Your task to perform on an android device: Search for seafood restaurants on Google Maps Image 0: 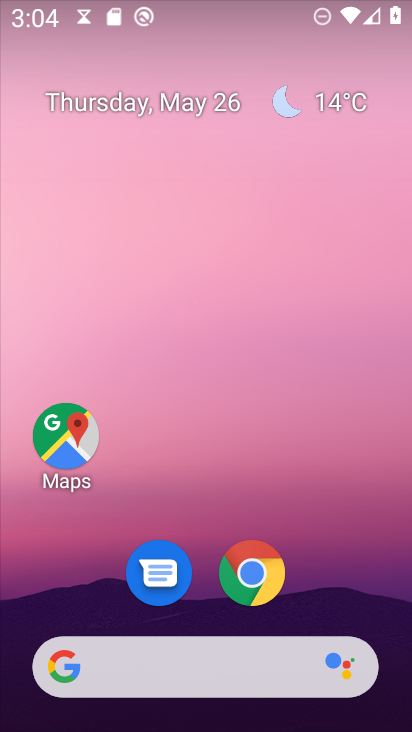
Step 0: drag from (299, 597) to (201, 37)
Your task to perform on an android device: Search for seafood restaurants on Google Maps Image 1: 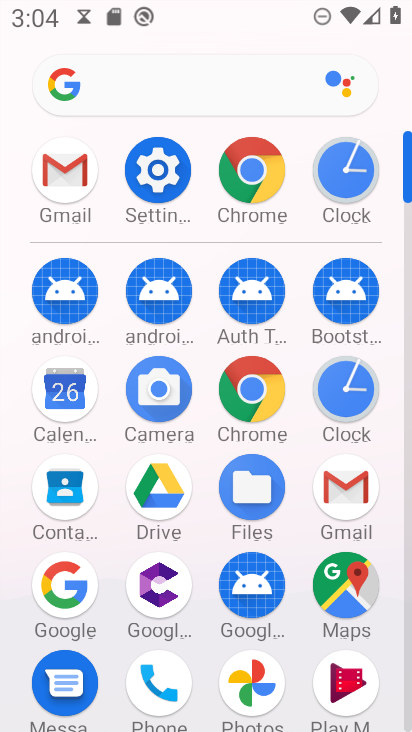
Step 1: click (337, 580)
Your task to perform on an android device: Search for seafood restaurants on Google Maps Image 2: 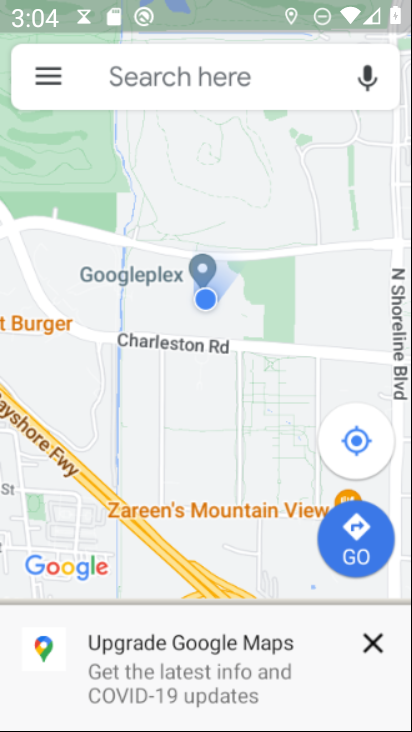
Step 2: click (276, 73)
Your task to perform on an android device: Search for seafood restaurants on Google Maps Image 3: 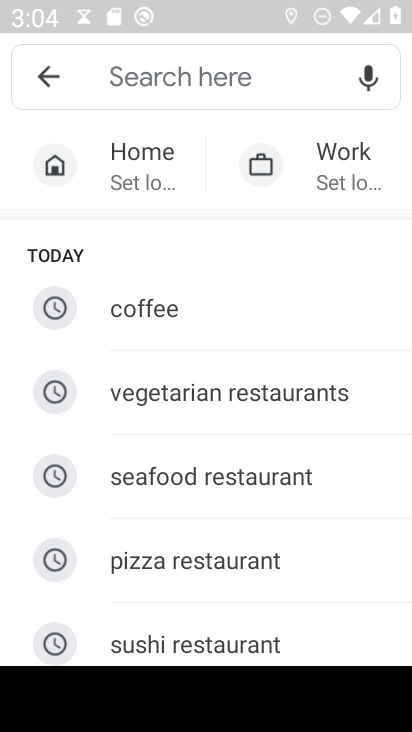
Step 3: click (237, 481)
Your task to perform on an android device: Search for seafood restaurants on Google Maps Image 4: 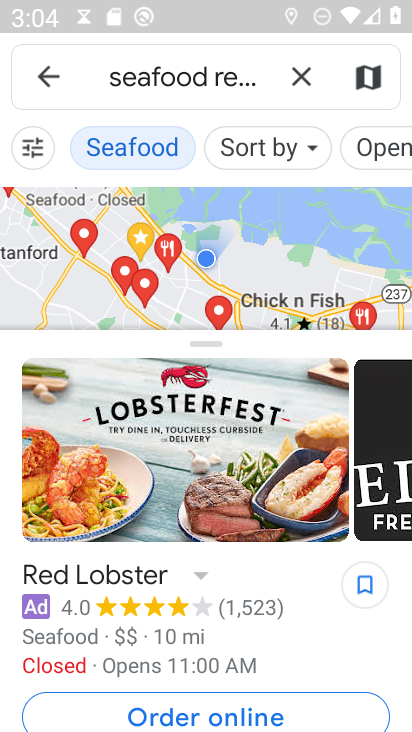
Step 4: task complete